Your task to perform on an android device: Search for Mexican restaurants on Maps Image 0: 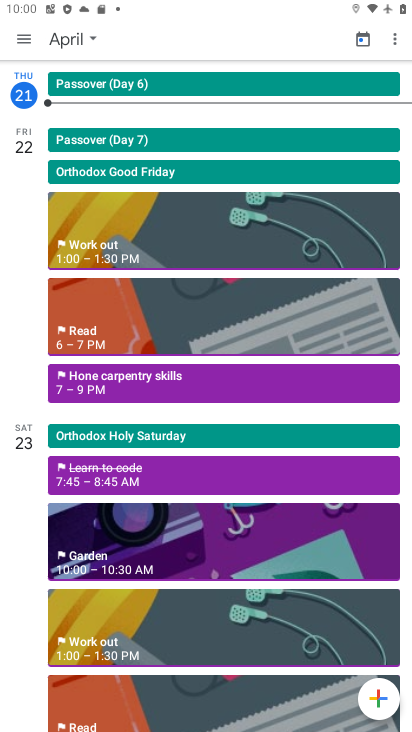
Step 0: press home button
Your task to perform on an android device: Search for Mexican restaurants on Maps Image 1: 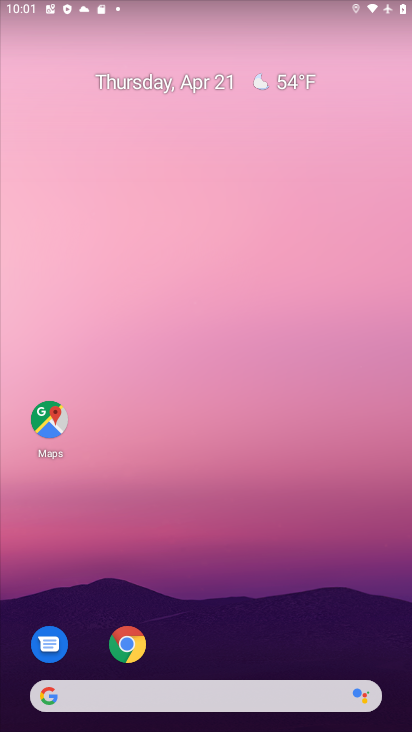
Step 1: drag from (175, 545) to (116, 79)
Your task to perform on an android device: Search for Mexican restaurants on Maps Image 2: 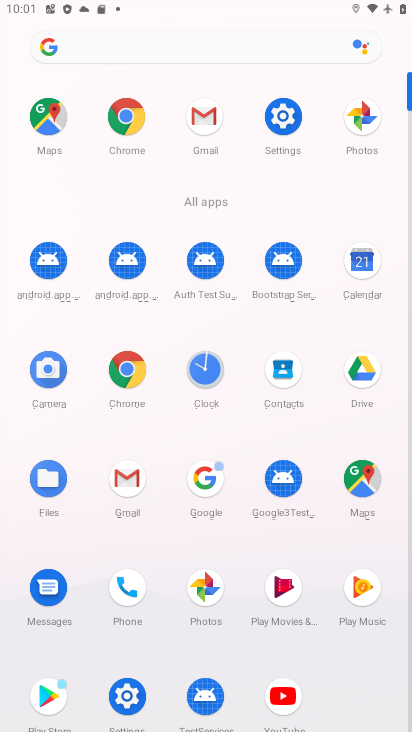
Step 2: click (42, 114)
Your task to perform on an android device: Search for Mexican restaurants on Maps Image 3: 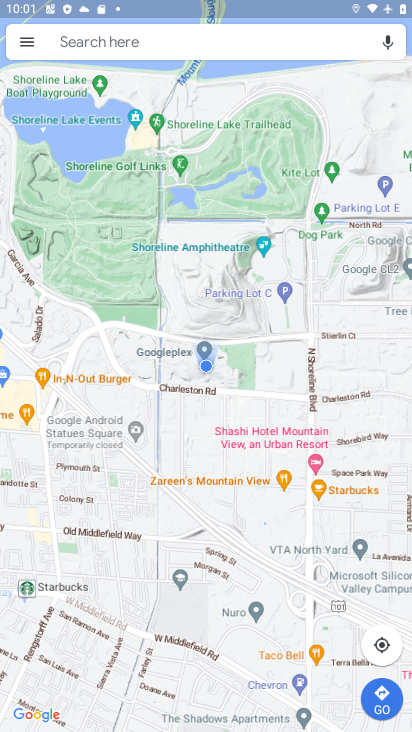
Step 3: click (145, 42)
Your task to perform on an android device: Search for Mexican restaurants on Maps Image 4: 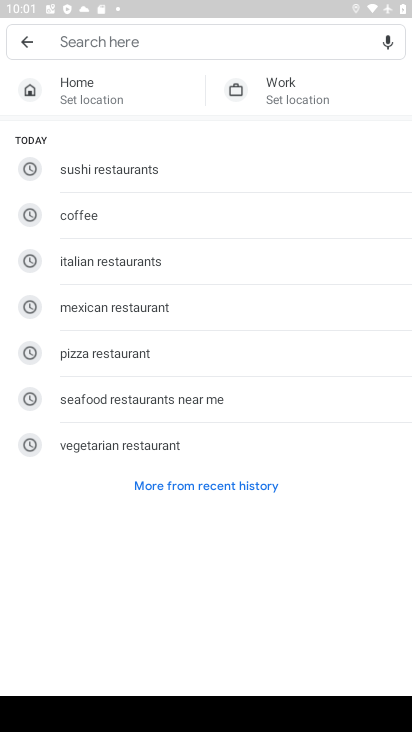
Step 4: click (70, 306)
Your task to perform on an android device: Search for Mexican restaurants on Maps Image 5: 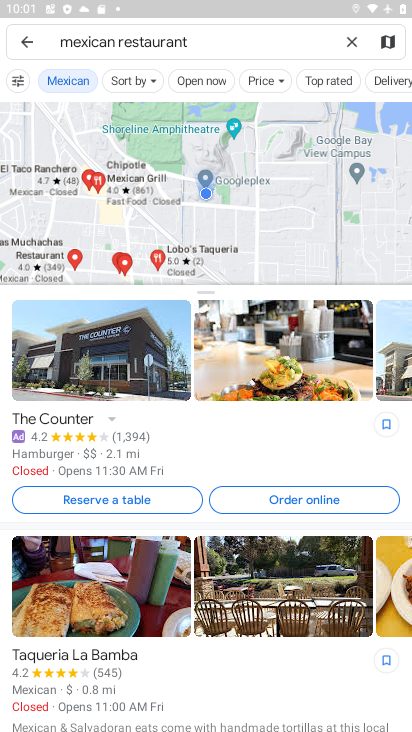
Step 5: task complete